Your task to perform on an android device: set the stopwatch Image 0: 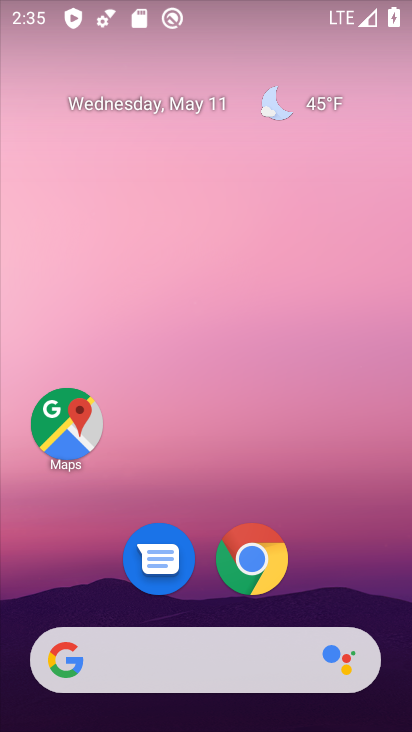
Step 0: drag from (330, 549) to (296, 62)
Your task to perform on an android device: set the stopwatch Image 1: 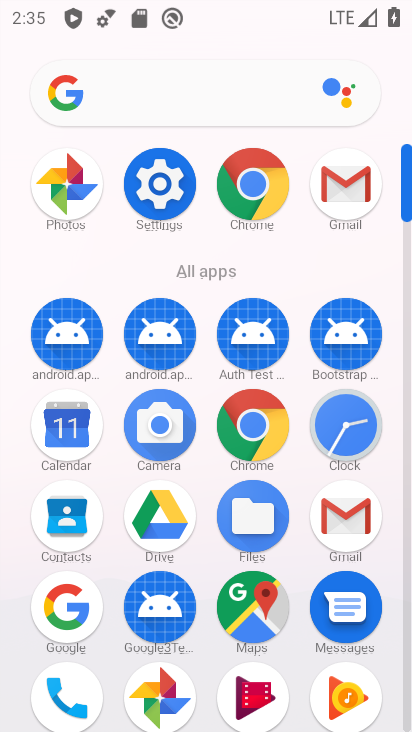
Step 1: click (345, 437)
Your task to perform on an android device: set the stopwatch Image 2: 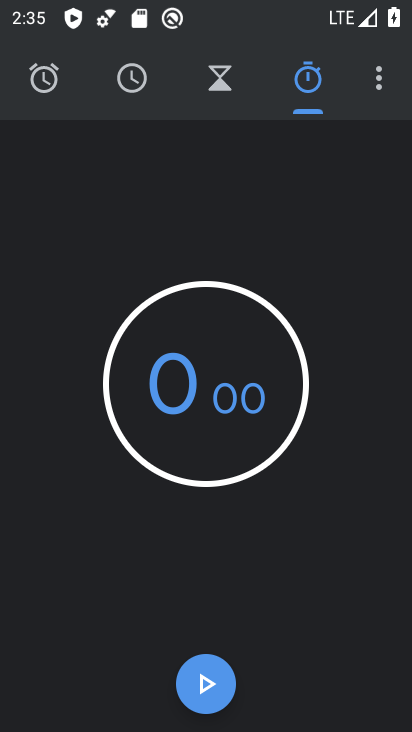
Step 2: click (196, 687)
Your task to perform on an android device: set the stopwatch Image 3: 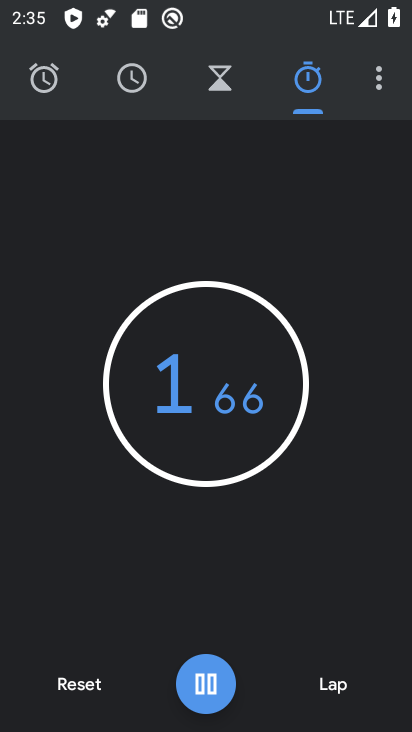
Step 3: task complete